Your task to perform on an android device: Open Youtube and go to "Your channel" Image 0: 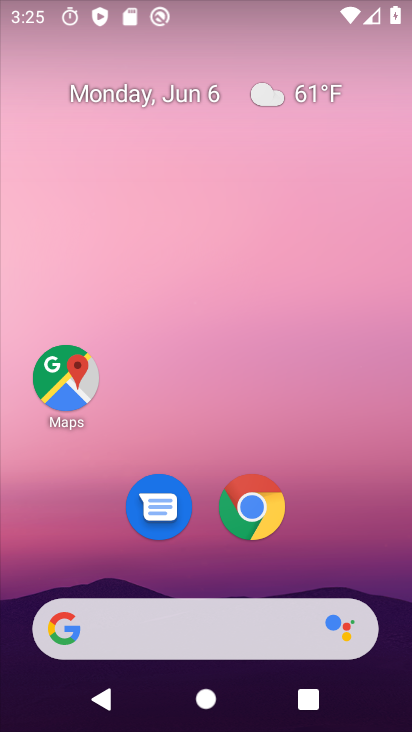
Step 0: drag from (195, 571) to (178, 226)
Your task to perform on an android device: Open Youtube and go to "Your channel" Image 1: 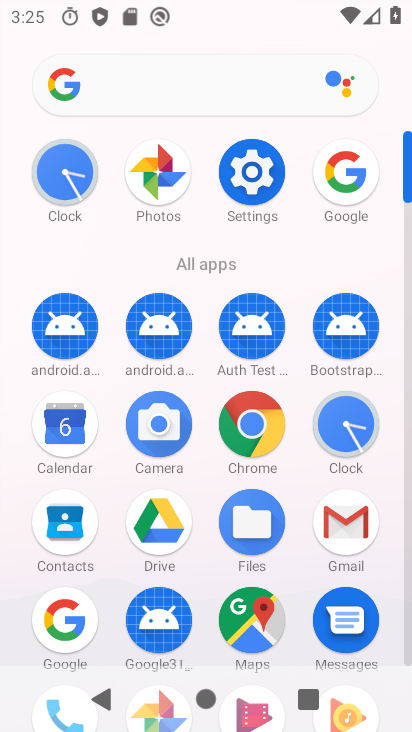
Step 1: drag from (215, 576) to (208, 224)
Your task to perform on an android device: Open Youtube and go to "Your channel" Image 2: 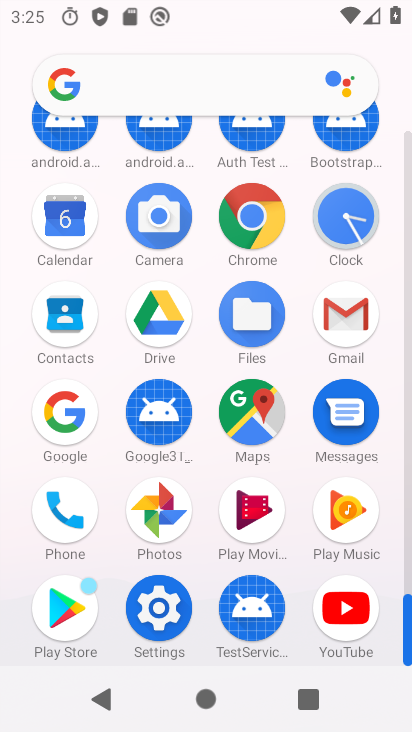
Step 2: click (339, 617)
Your task to perform on an android device: Open Youtube and go to "Your channel" Image 3: 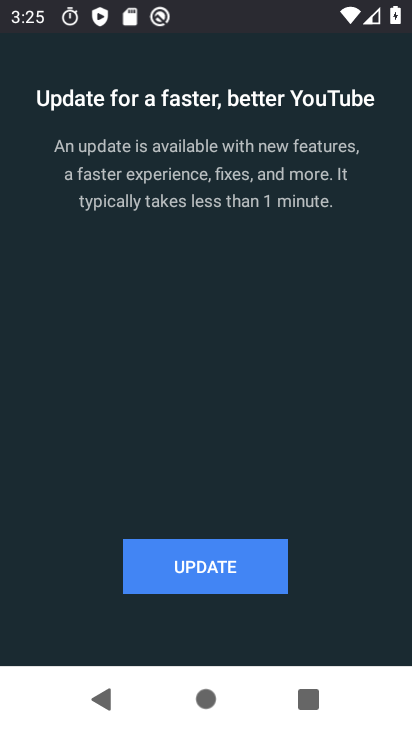
Step 3: click (179, 580)
Your task to perform on an android device: Open Youtube and go to "Your channel" Image 4: 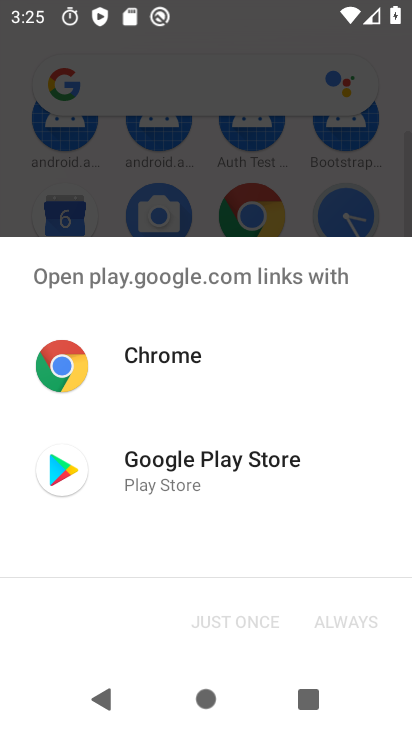
Step 4: click (183, 474)
Your task to perform on an android device: Open Youtube and go to "Your channel" Image 5: 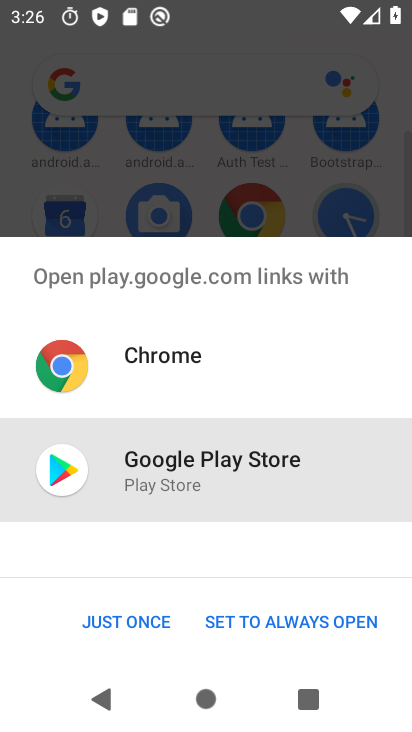
Step 5: click (149, 626)
Your task to perform on an android device: Open Youtube and go to "Your channel" Image 6: 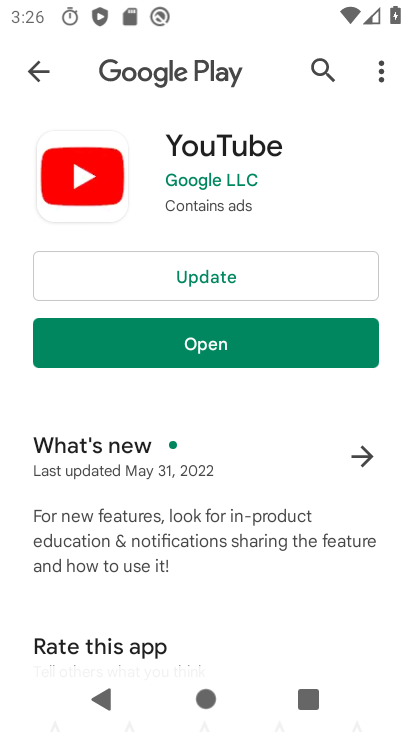
Step 6: click (180, 279)
Your task to perform on an android device: Open Youtube and go to "Your channel" Image 7: 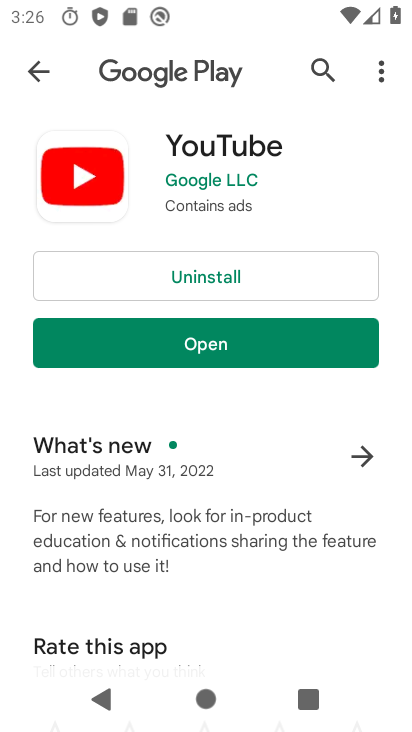
Step 7: click (187, 351)
Your task to perform on an android device: Open Youtube and go to "Your channel" Image 8: 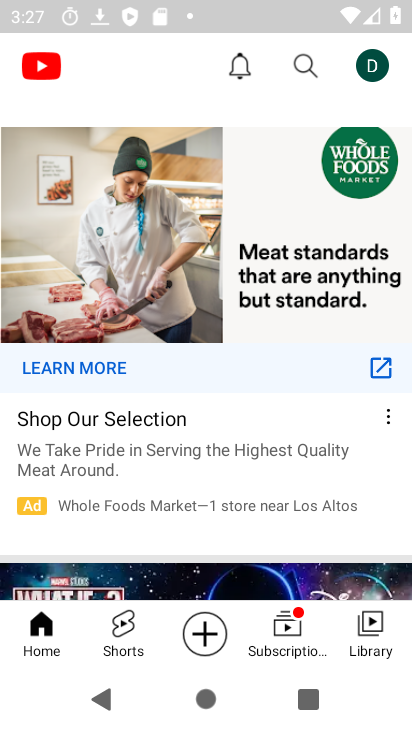
Step 8: click (368, 69)
Your task to perform on an android device: Open Youtube and go to "Your channel" Image 9: 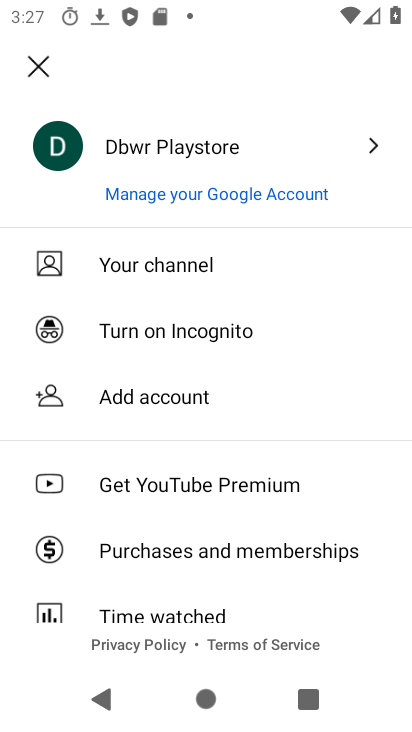
Step 9: click (148, 256)
Your task to perform on an android device: Open Youtube and go to "Your channel" Image 10: 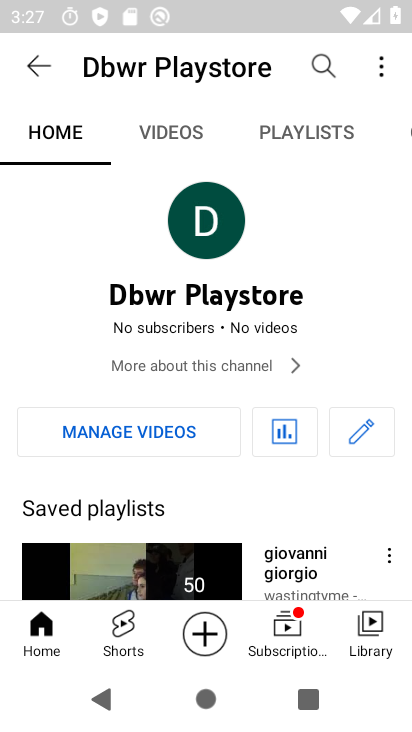
Step 10: task complete